Your task to perform on an android device: delete browsing data in the chrome app Image 0: 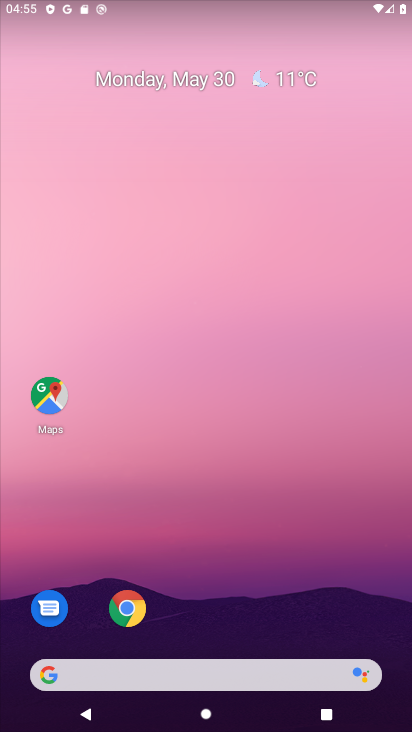
Step 0: click (142, 611)
Your task to perform on an android device: delete browsing data in the chrome app Image 1: 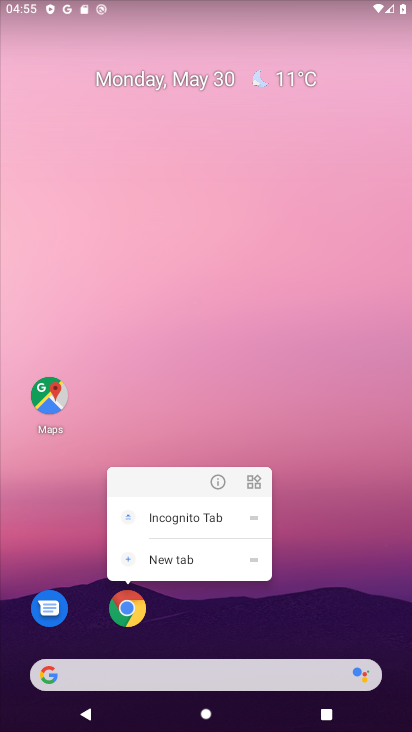
Step 1: click (126, 603)
Your task to perform on an android device: delete browsing data in the chrome app Image 2: 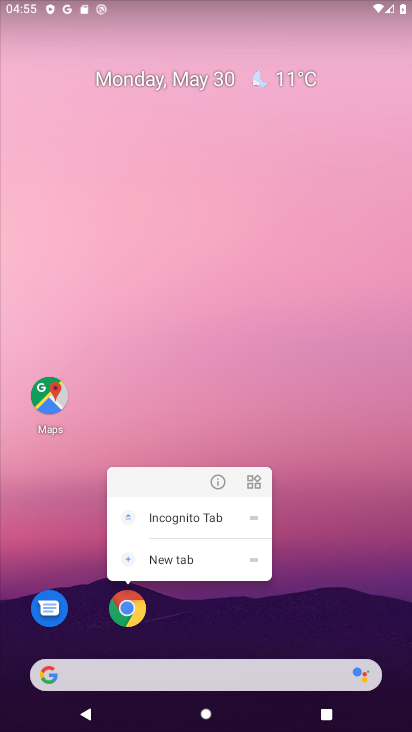
Step 2: click (128, 607)
Your task to perform on an android device: delete browsing data in the chrome app Image 3: 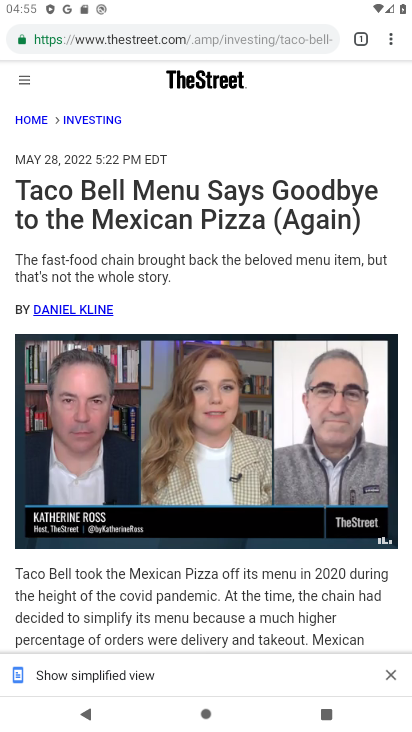
Step 3: click (399, 36)
Your task to perform on an android device: delete browsing data in the chrome app Image 4: 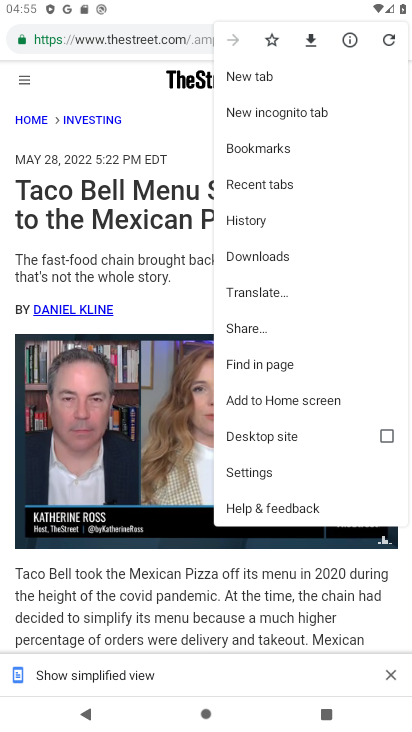
Step 4: click (255, 218)
Your task to perform on an android device: delete browsing data in the chrome app Image 5: 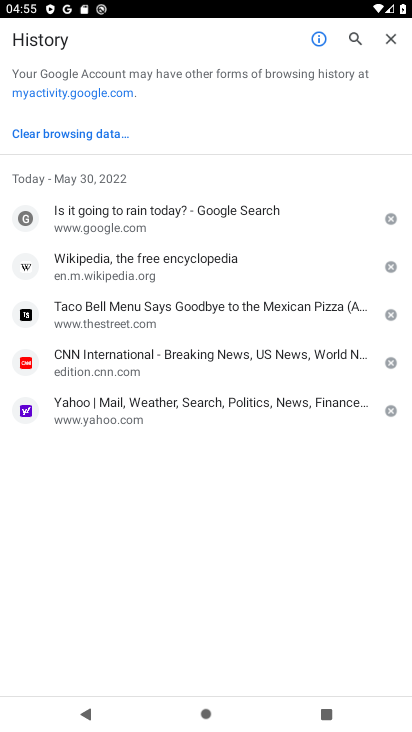
Step 5: click (106, 131)
Your task to perform on an android device: delete browsing data in the chrome app Image 6: 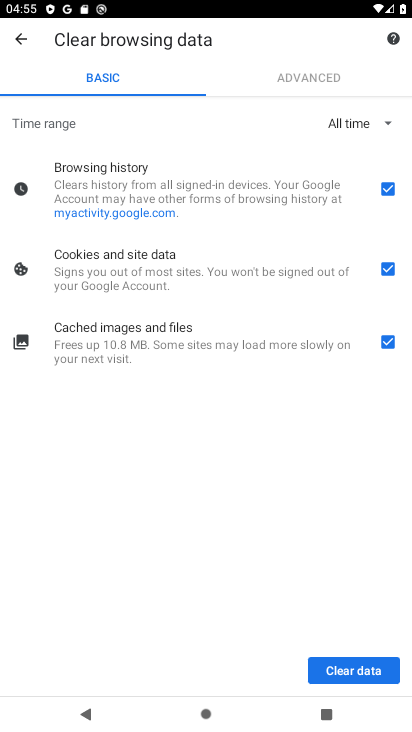
Step 6: click (324, 667)
Your task to perform on an android device: delete browsing data in the chrome app Image 7: 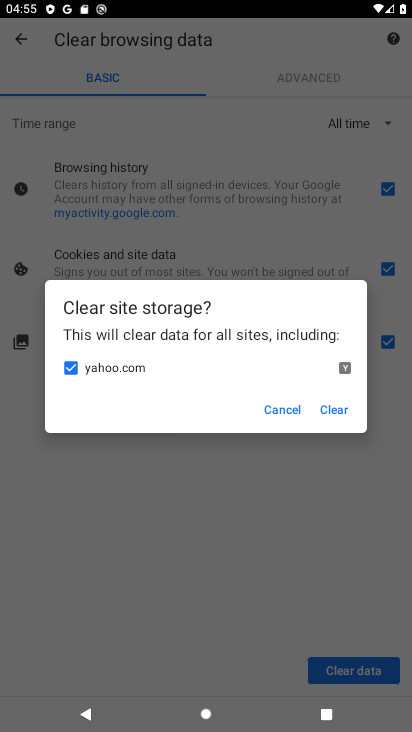
Step 7: click (326, 415)
Your task to perform on an android device: delete browsing data in the chrome app Image 8: 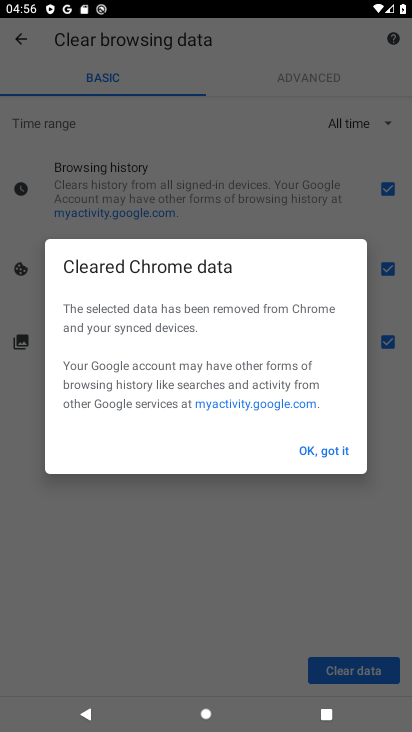
Step 8: click (344, 447)
Your task to perform on an android device: delete browsing data in the chrome app Image 9: 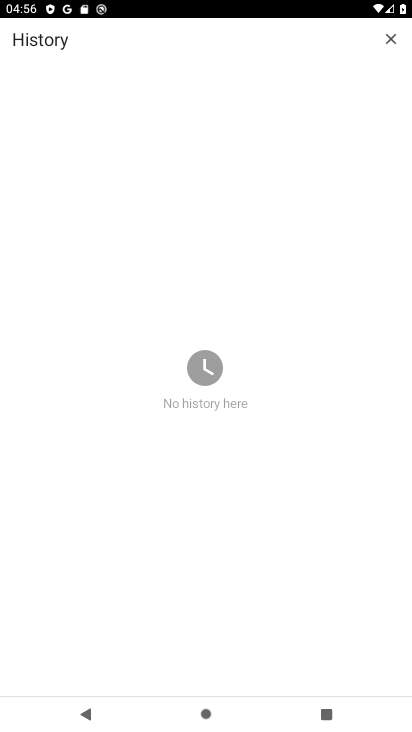
Step 9: task complete